Your task to perform on an android device: Search for macbook pro 13 inch on newegg.com, select the first entry, and add it to the cart. Image 0: 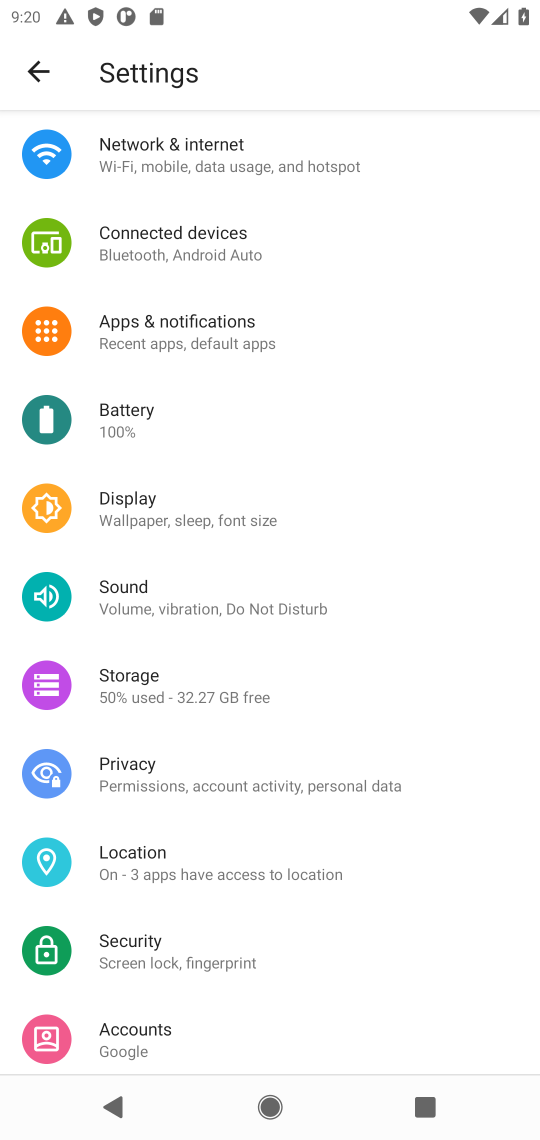
Step 0: press home button
Your task to perform on an android device: Search for macbook pro 13 inch on newegg.com, select the first entry, and add it to the cart. Image 1: 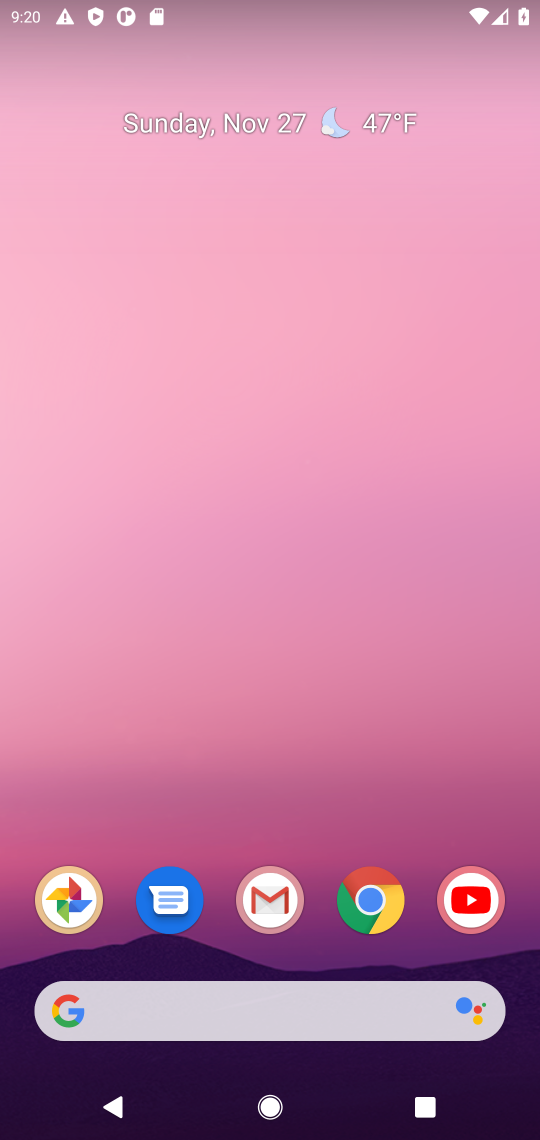
Step 1: click (368, 907)
Your task to perform on an android device: Search for macbook pro 13 inch on newegg.com, select the first entry, and add it to the cart. Image 2: 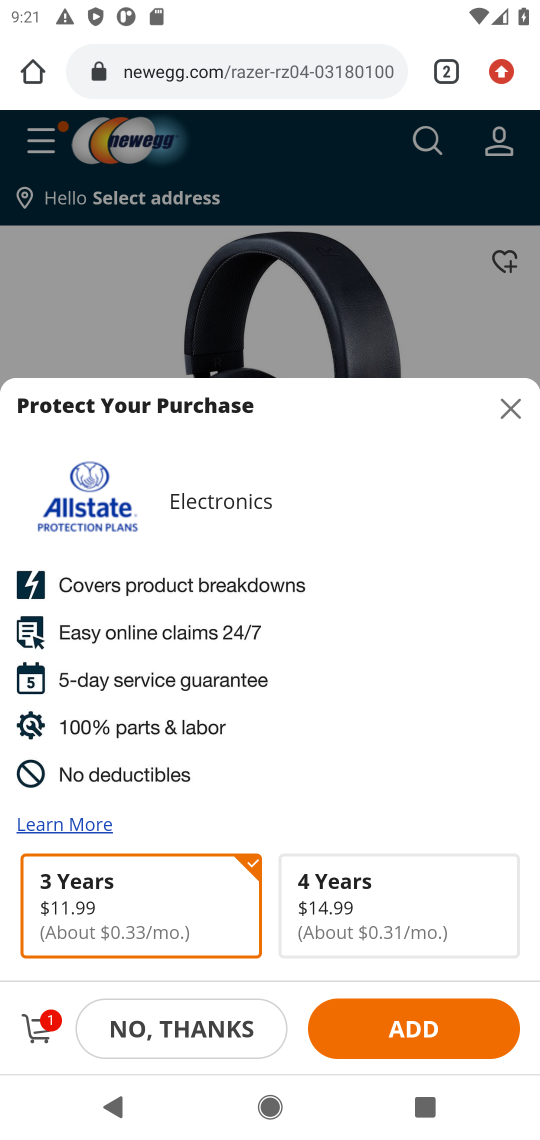
Step 2: click (507, 406)
Your task to perform on an android device: Search for macbook pro 13 inch on newegg.com, select the first entry, and add it to the cart. Image 3: 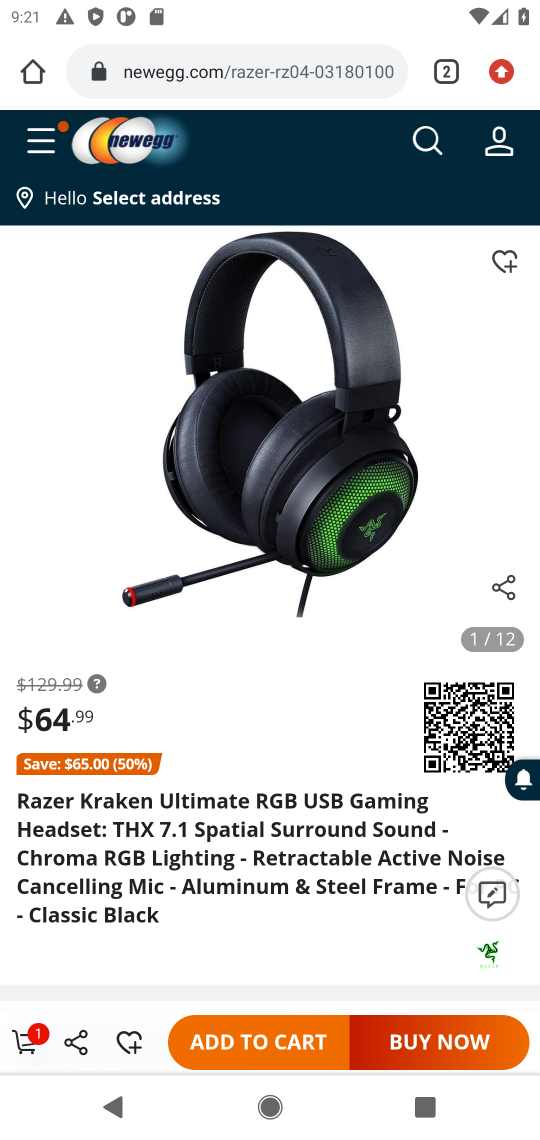
Step 3: click (425, 140)
Your task to perform on an android device: Search for macbook pro 13 inch on newegg.com, select the first entry, and add it to the cart. Image 4: 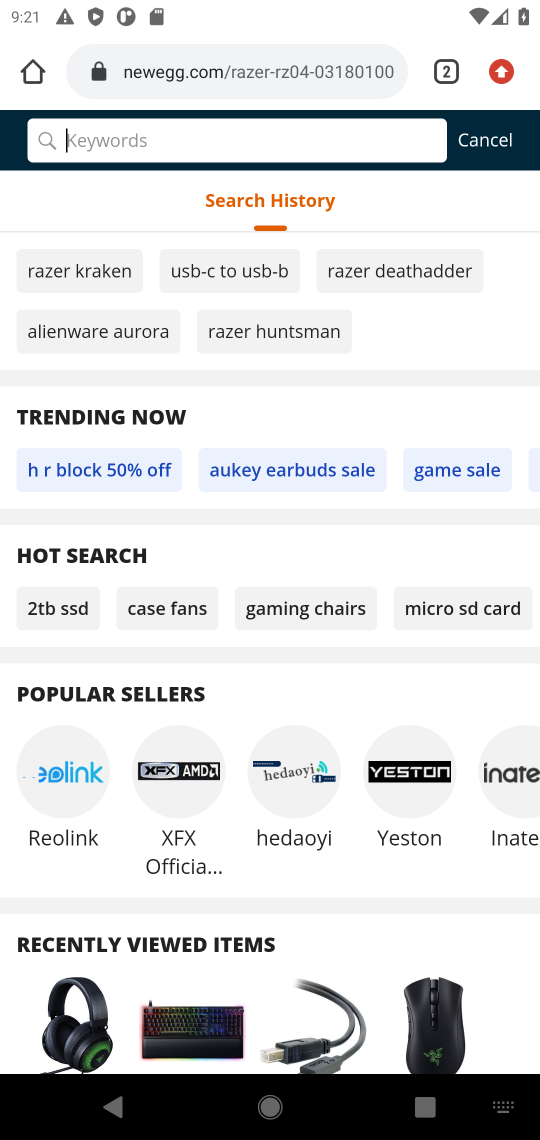
Step 4: type "macbook pro 13 inch "
Your task to perform on an android device: Search for macbook pro 13 inch on newegg.com, select the first entry, and add it to the cart. Image 5: 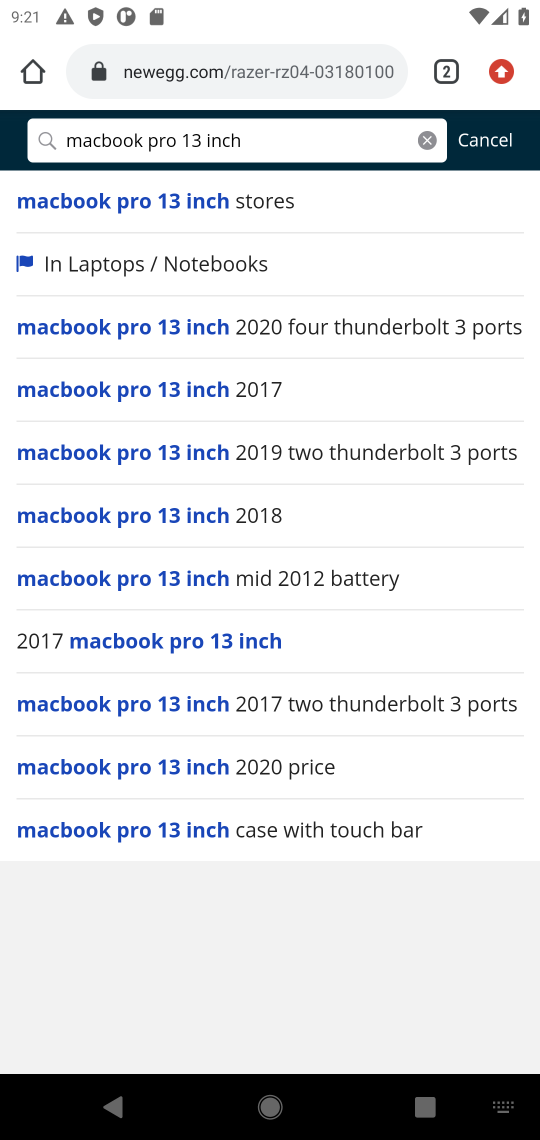
Step 5: click (85, 519)
Your task to perform on an android device: Search for macbook pro 13 inch on newegg.com, select the first entry, and add it to the cart. Image 6: 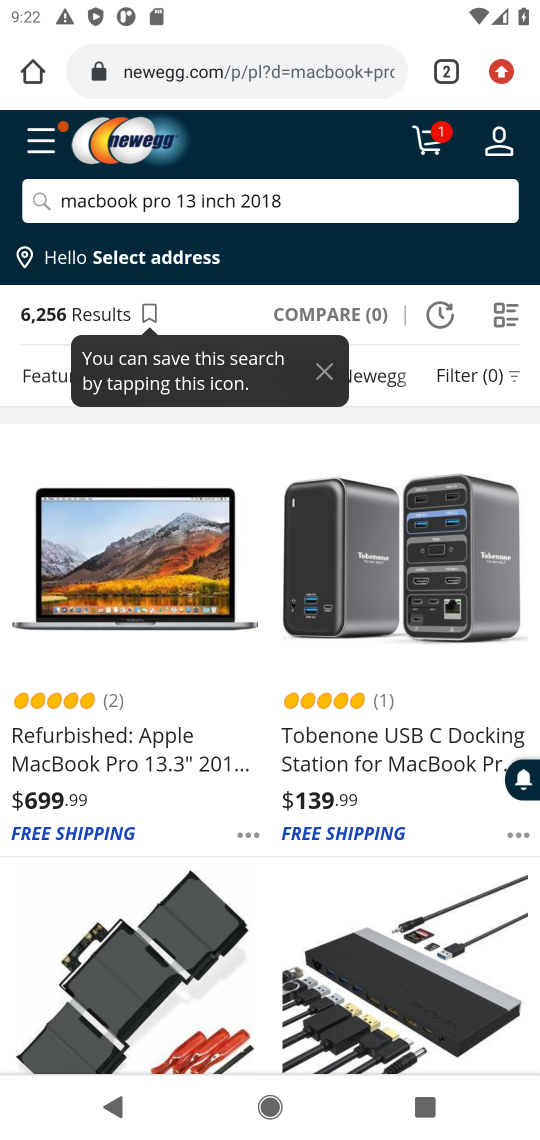
Step 6: click (74, 724)
Your task to perform on an android device: Search for macbook pro 13 inch on newegg.com, select the first entry, and add it to the cart. Image 7: 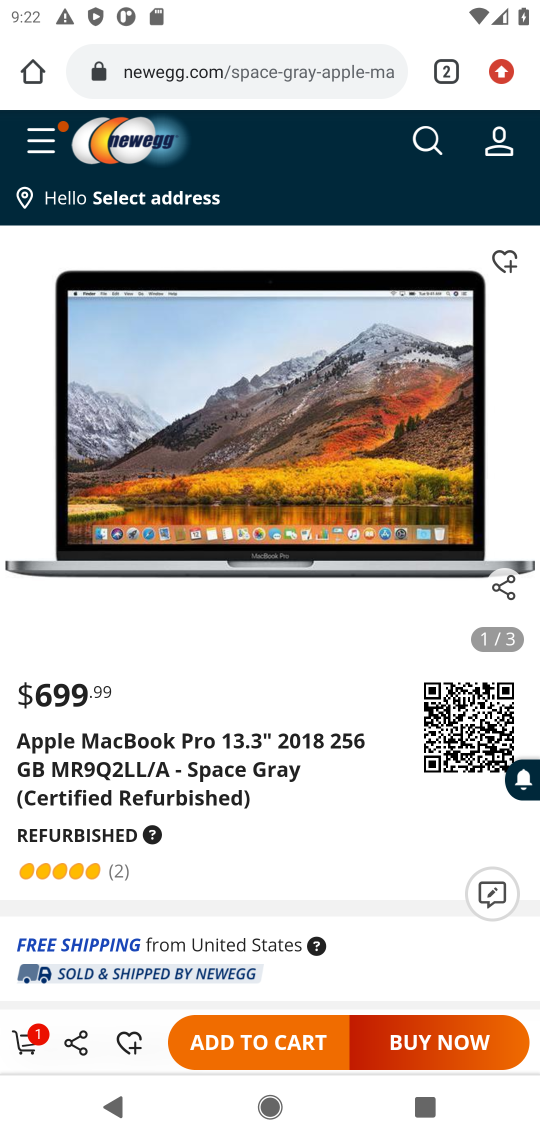
Step 7: click (257, 1045)
Your task to perform on an android device: Search for macbook pro 13 inch on newegg.com, select the first entry, and add it to the cart. Image 8: 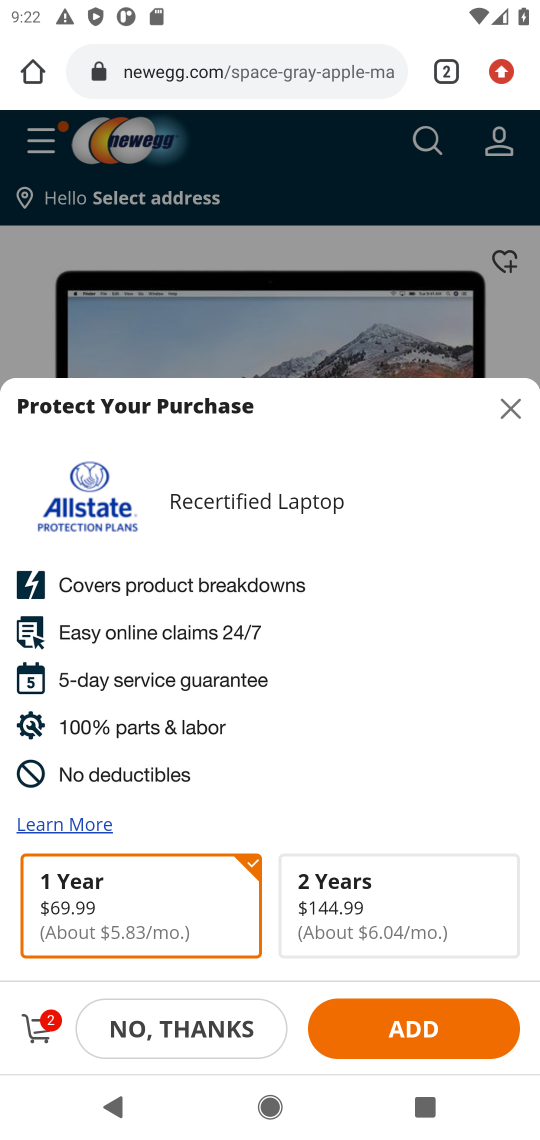
Step 8: task complete